Your task to perform on an android device: Go to Wikipedia Image 0: 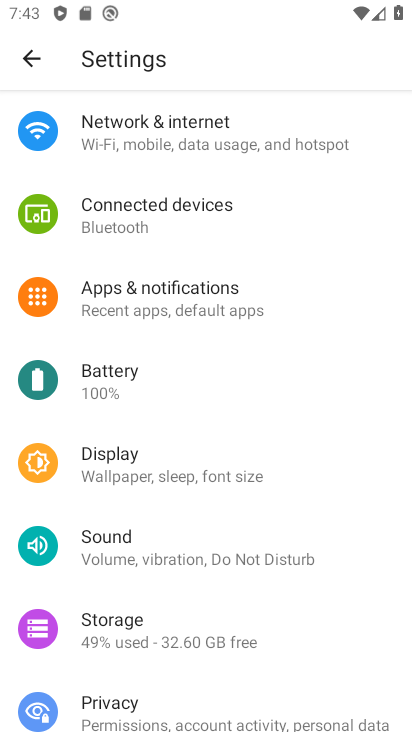
Step 0: press home button
Your task to perform on an android device: Go to Wikipedia Image 1: 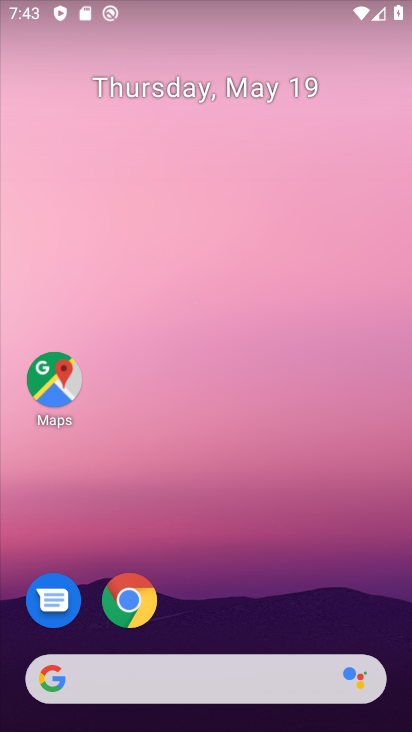
Step 1: click (139, 597)
Your task to perform on an android device: Go to Wikipedia Image 2: 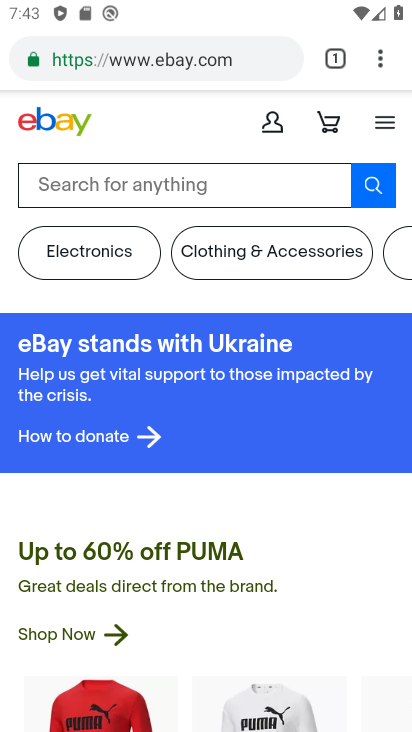
Step 2: click (247, 65)
Your task to perform on an android device: Go to Wikipedia Image 3: 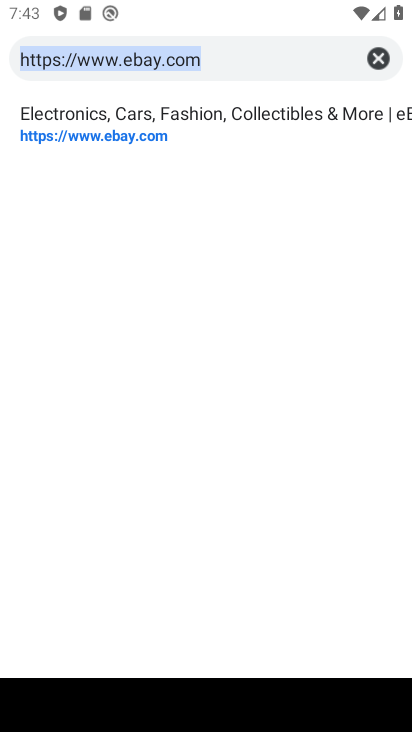
Step 3: type "wikipedia"
Your task to perform on an android device: Go to Wikipedia Image 4: 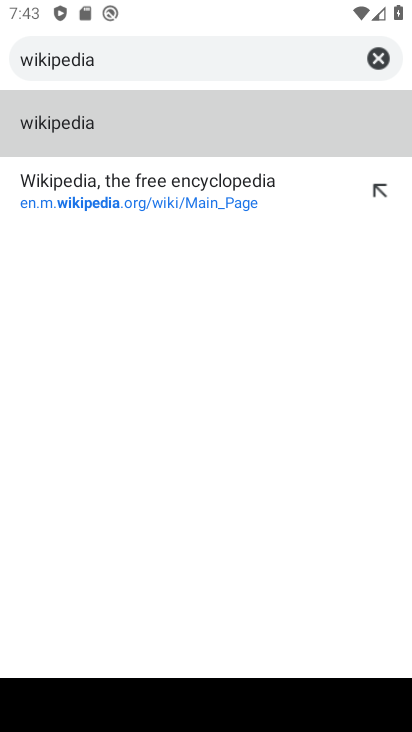
Step 4: click (87, 177)
Your task to perform on an android device: Go to Wikipedia Image 5: 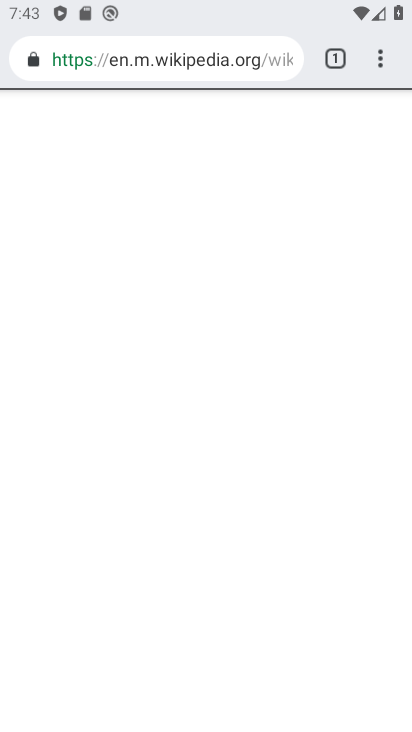
Step 5: task complete